Your task to perform on an android device: Open calendar and show me the fourth week of next month Image 0: 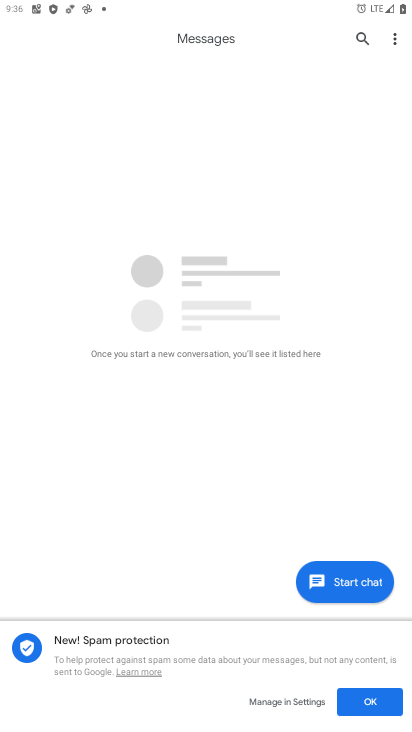
Step 0: press home button
Your task to perform on an android device: Open calendar and show me the fourth week of next month Image 1: 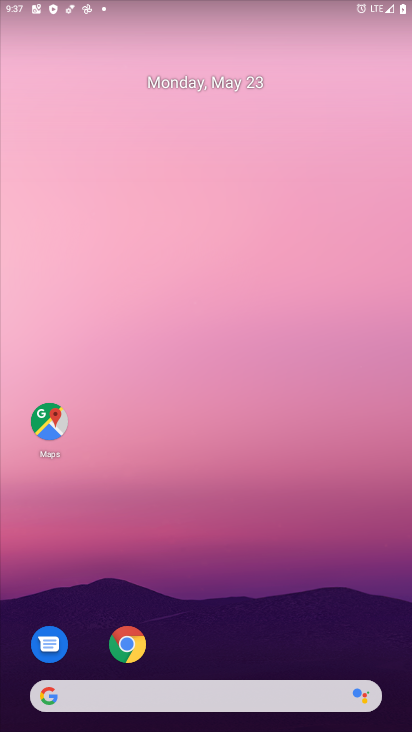
Step 1: drag from (126, 651) to (155, 130)
Your task to perform on an android device: Open calendar and show me the fourth week of next month Image 2: 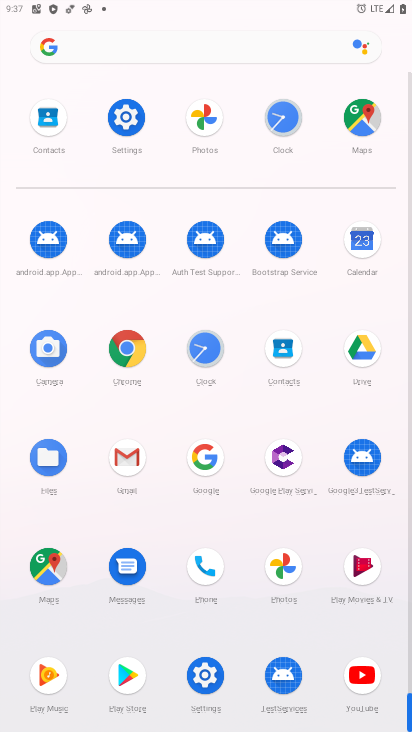
Step 2: click (354, 232)
Your task to perform on an android device: Open calendar and show me the fourth week of next month Image 3: 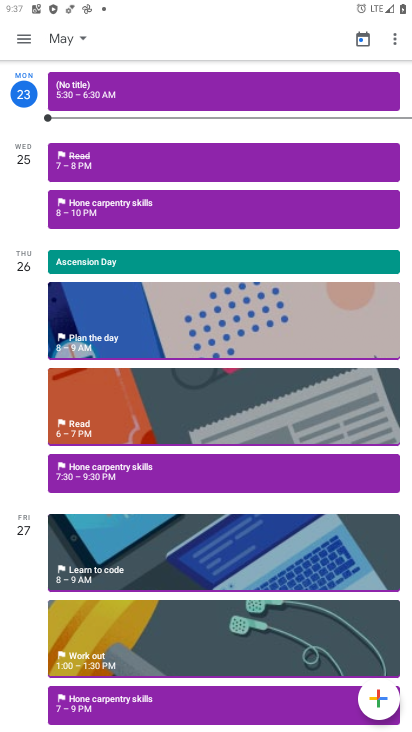
Step 3: click (59, 38)
Your task to perform on an android device: Open calendar and show me the fourth week of next month Image 4: 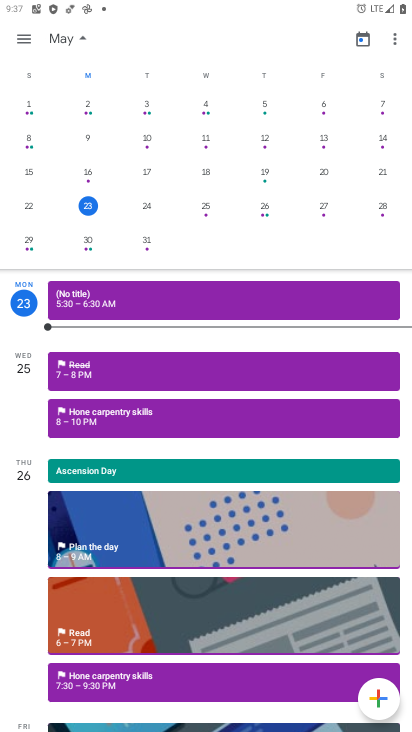
Step 4: drag from (362, 145) to (71, 213)
Your task to perform on an android device: Open calendar and show me the fourth week of next month Image 5: 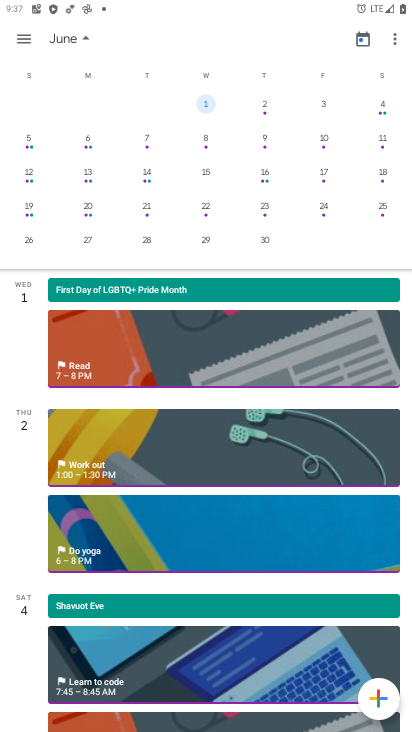
Step 5: click (26, 203)
Your task to perform on an android device: Open calendar and show me the fourth week of next month Image 6: 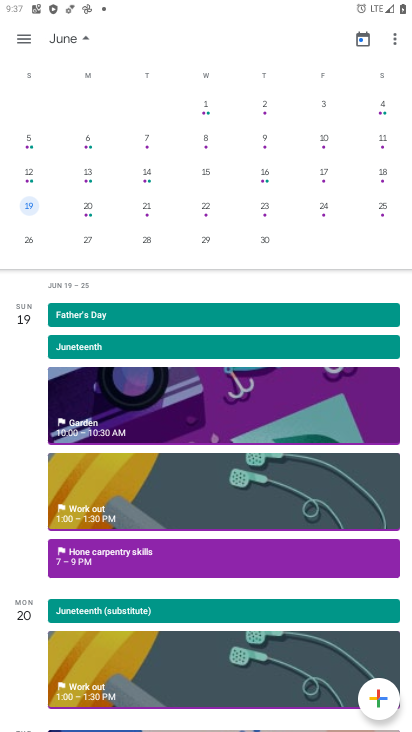
Step 6: task complete